Your task to perform on an android device: Go to ESPN.com Image 0: 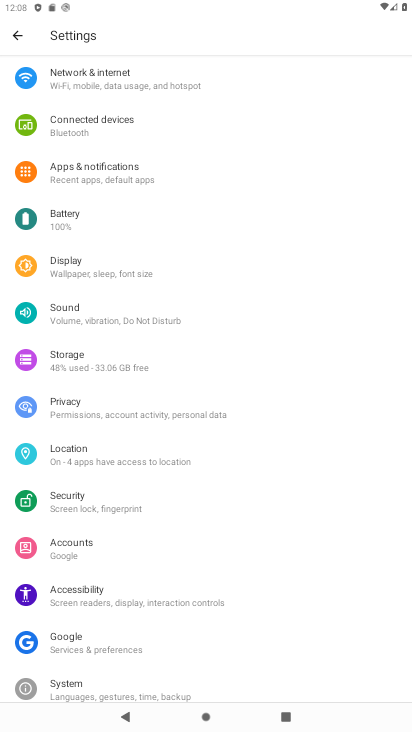
Step 0: press home button
Your task to perform on an android device: Go to ESPN.com Image 1: 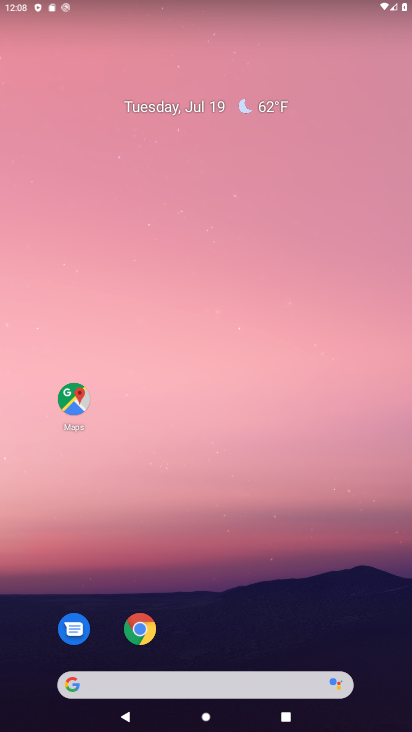
Step 1: drag from (199, 655) to (120, 59)
Your task to perform on an android device: Go to ESPN.com Image 2: 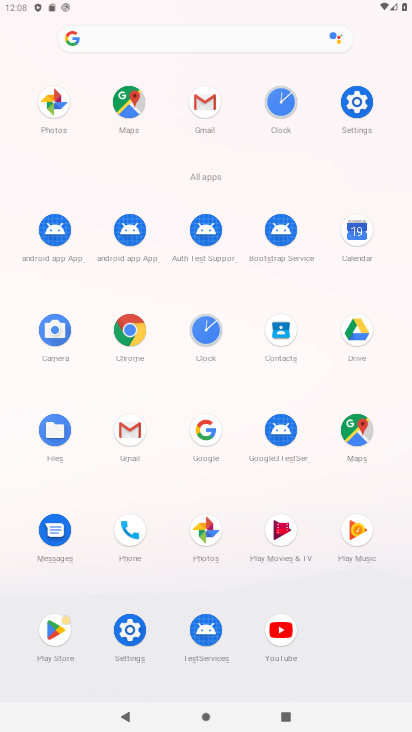
Step 2: click (129, 332)
Your task to perform on an android device: Go to ESPN.com Image 3: 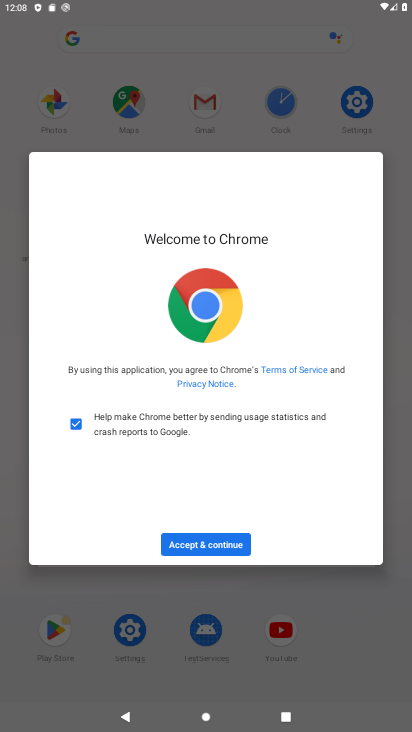
Step 3: click (213, 537)
Your task to perform on an android device: Go to ESPN.com Image 4: 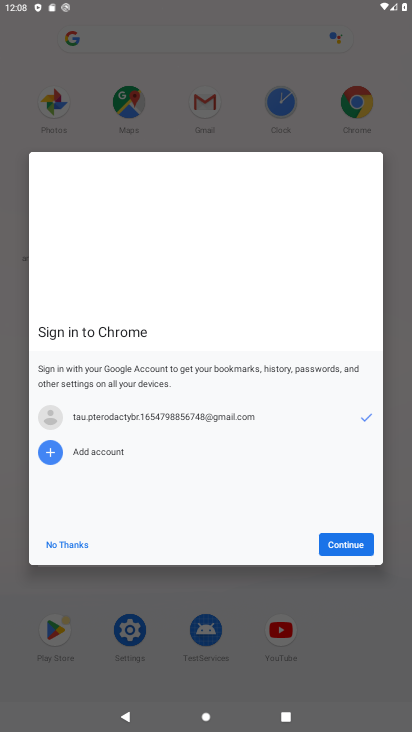
Step 4: click (342, 540)
Your task to perform on an android device: Go to ESPN.com Image 5: 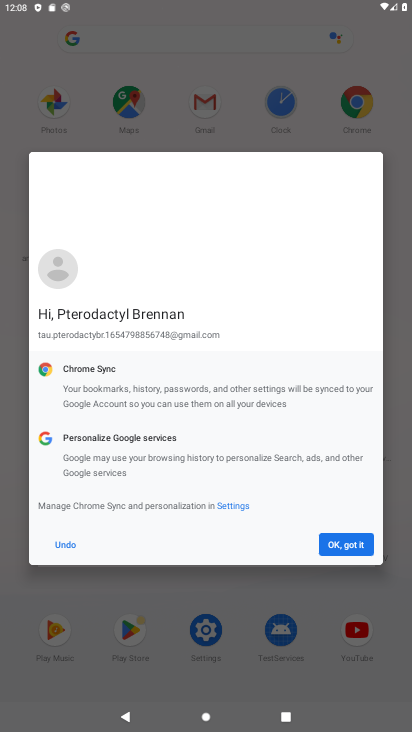
Step 5: click (335, 543)
Your task to perform on an android device: Go to ESPN.com Image 6: 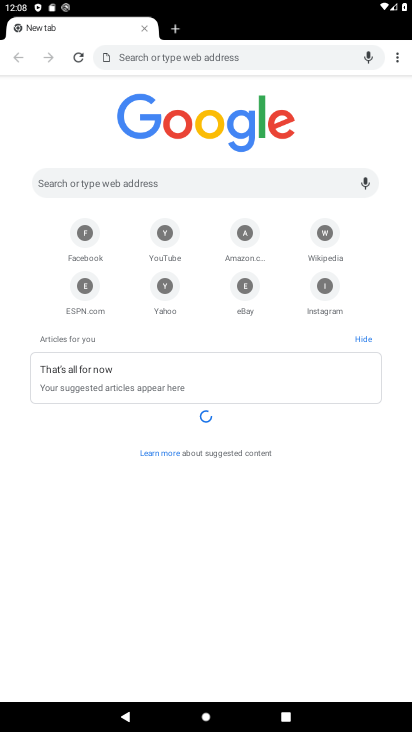
Step 6: click (84, 295)
Your task to perform on an android device: Go to ESPN.com Image 7: 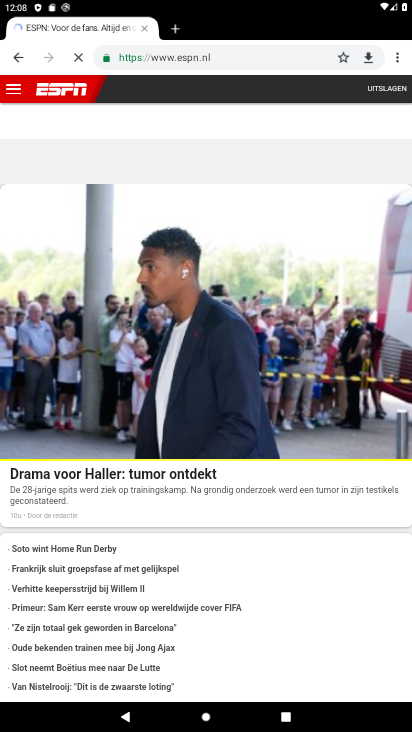
Step 7: task complete